Your task to perform on an android device: Show me the alarms in the clock app Image 0: 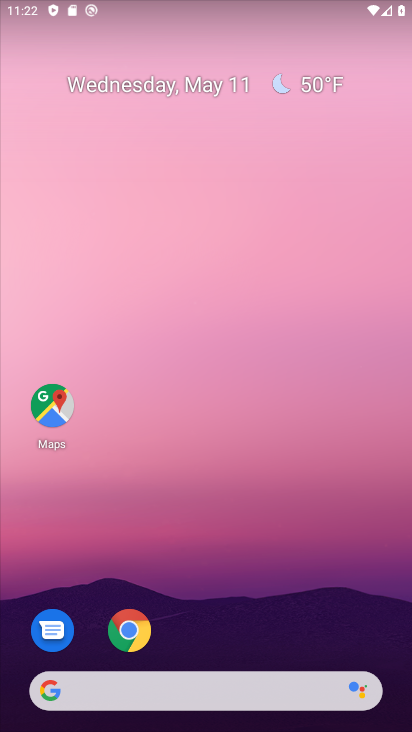
Step 0: drag from (278, 614) to (313, 300)
Your task to perform on an android device: Show me the alarms in the clock app Image 1: 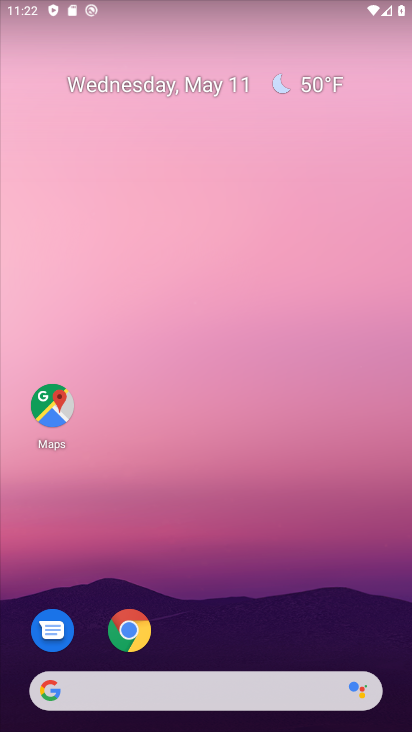
Step 1: drag from (324, 522) to (324, 153)
Your task to perform on an android device: Show me the alarms in the clock app Image 2: 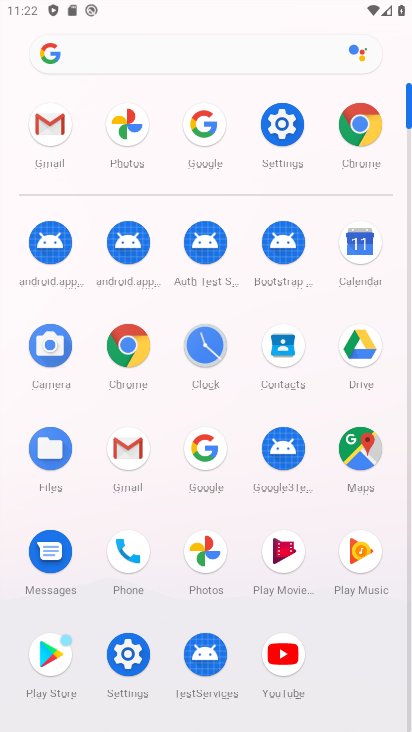
Step 2: click (213, 350)
Your task to perform on an android device: Show me the alarms in the clock app Image 3: 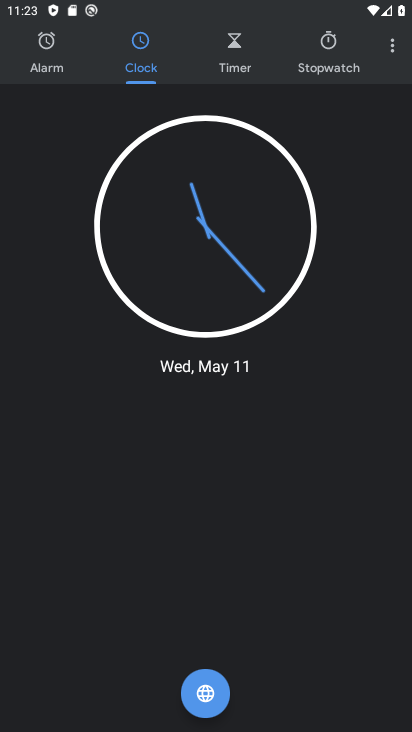
Step 3: click (48, 72)
Your task to perform on an android device: Show me the alarms in the clock app Image 4: 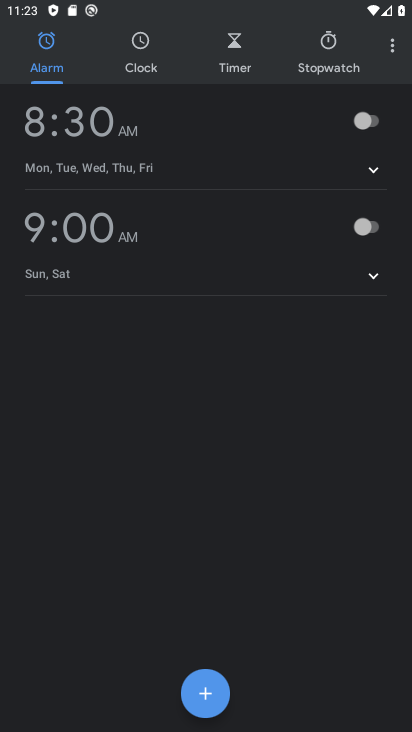
Step 4: task complete